Your task to perform on an android device: turn on data saver in the chrome app Image 0: 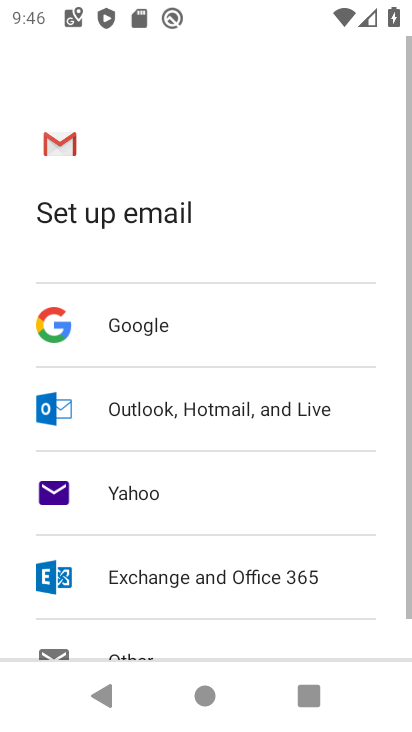
Step 0: press home button
Your task to perform on an android device: turn on data saver in the chrome app Image 1: 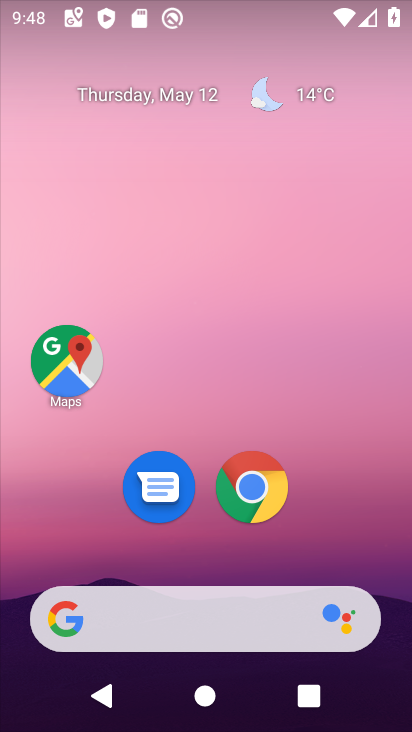
Step 1: click (244, 485)
Your task to perform on an android device: turn on data saver in the chrome app Image 2: 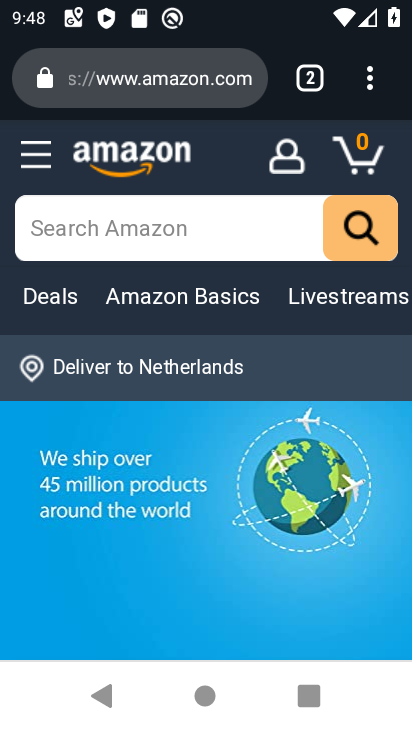
Step 2: click (368, 79)
Your task to perform on an android device: turn on data saver in the chrome app Image 3: 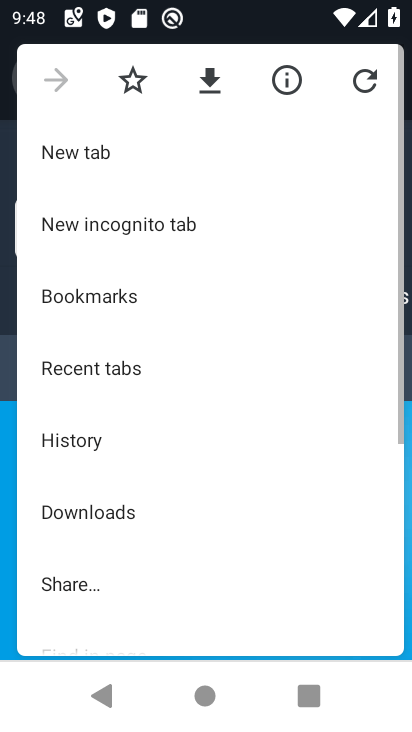
Step 3: drag from (191, 567) to (291, 114)
Your task to perform on an android device: turn on data saver in the chrome app Image 4: 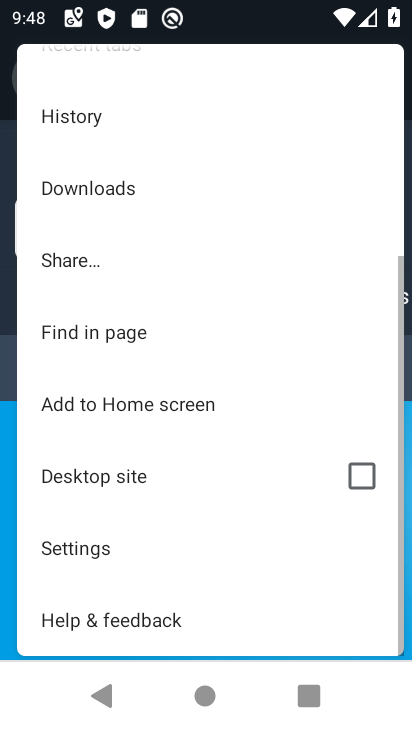
Step 4: click (119, 543)
Your task to perform on an android device: turn on data saver in the chrome app Image 5: 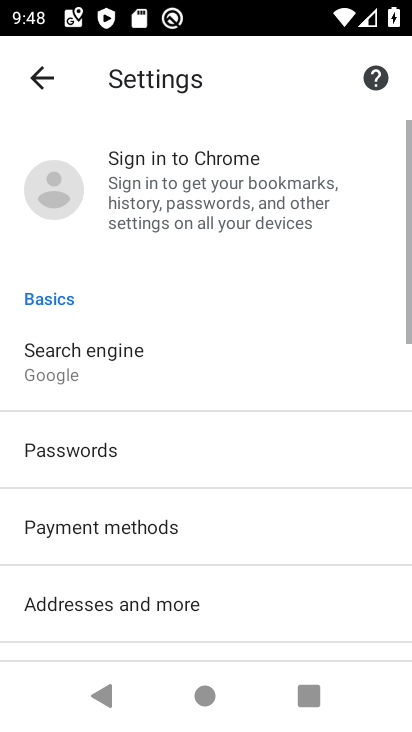
Step 5: drag from (117, 627) to (338, 122)
Your task to perform on an android device: turn on data saver in the chrome app Image 6: 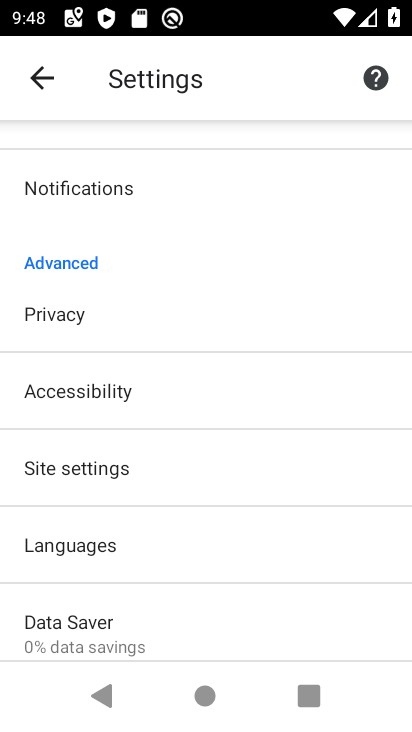
Step 6: click (113, 632)
Your task to perform on an android device: turn on data saver in the chrome app Image 7: 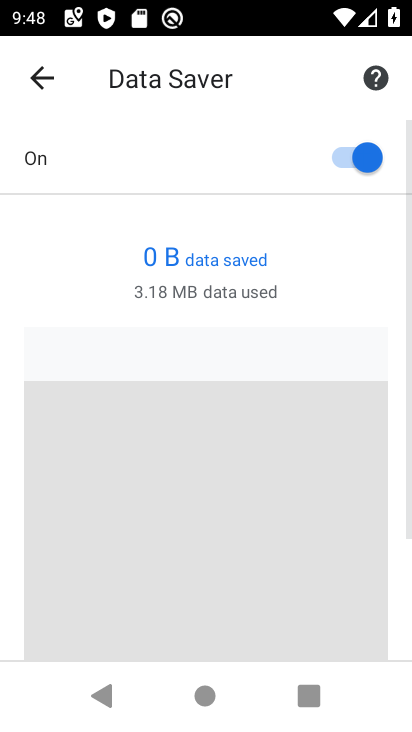
Step 7: task complete